Your task to perform on an android device: open a bookmark in the chrome app Image 0: 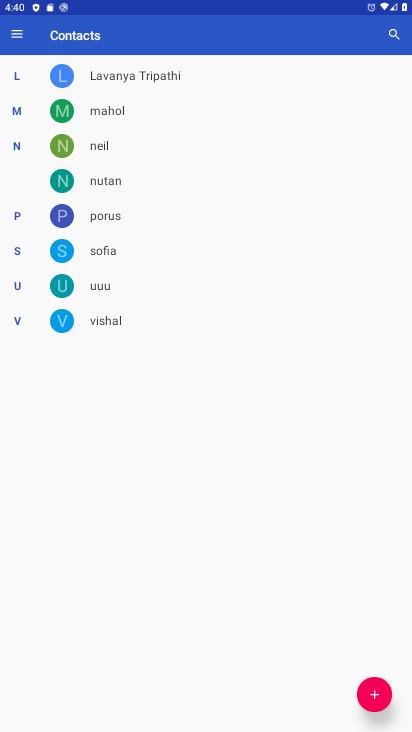
Step 0: press home button
Your task to perform on an android device: open a bookmark in the chrome app Image 1: 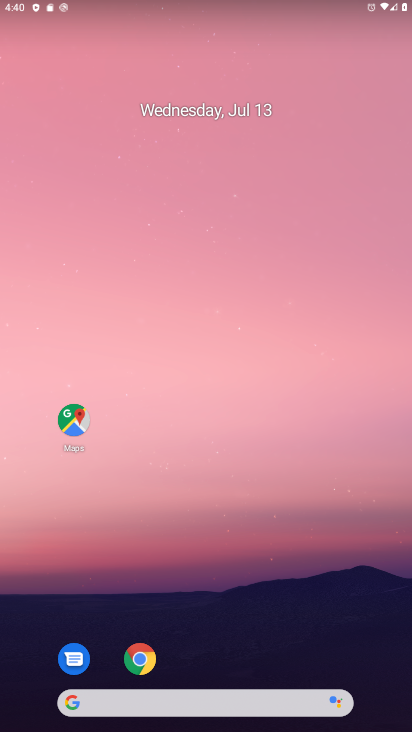
Step 1: drag from (244, 559) to (268, 137)
Your task to perform on an android device: open a bookmark in the chrome app Image 2: 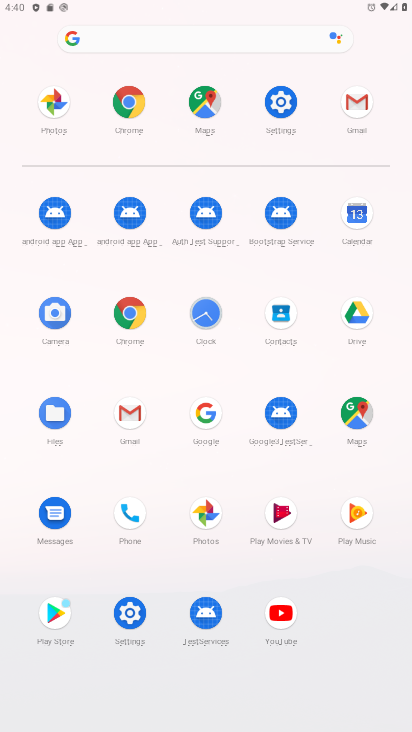
Step 2: click (130, 314)
Your task to perform on an android device: open a bookmark in the chrome app Image 3: 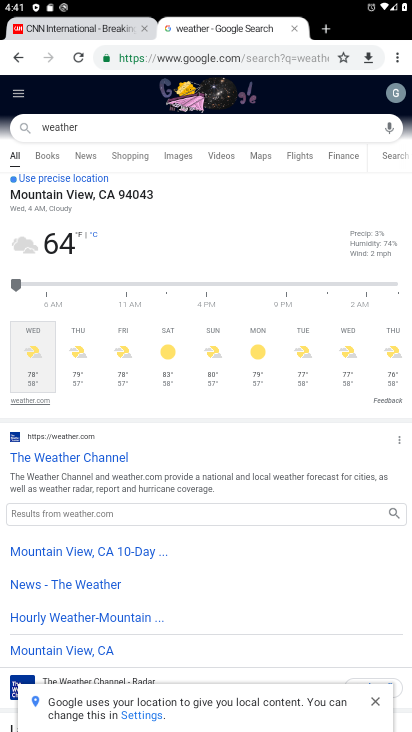
Step 3: drag from (397, 58) to (315, 116)
Your task to perform on an android device: open a bookmark in the chrome app Image 4: 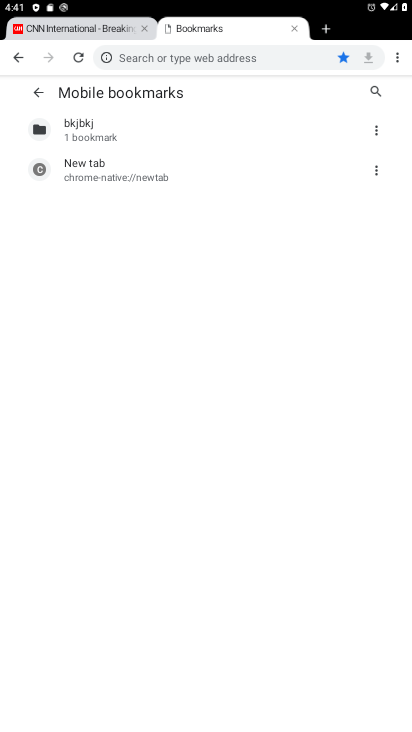
Step 4: click (109, 164)
Your task to perform on an android device: open a bookmark in the chrome app Image 5: 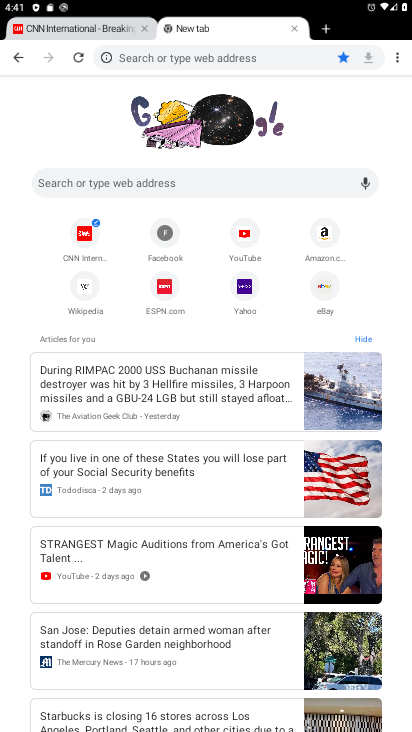
Step 5: task complete